Your task to perform on an android device: What's the weather going to be tomorrow? Image 0: 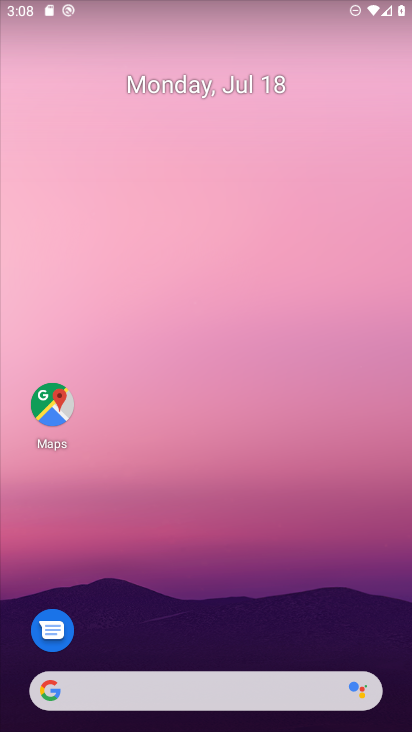
Step 0: drag from (198, 612) to (296, 140)
Your task to perform on an android device: What's the weather going to be tomorrow? Image 1: 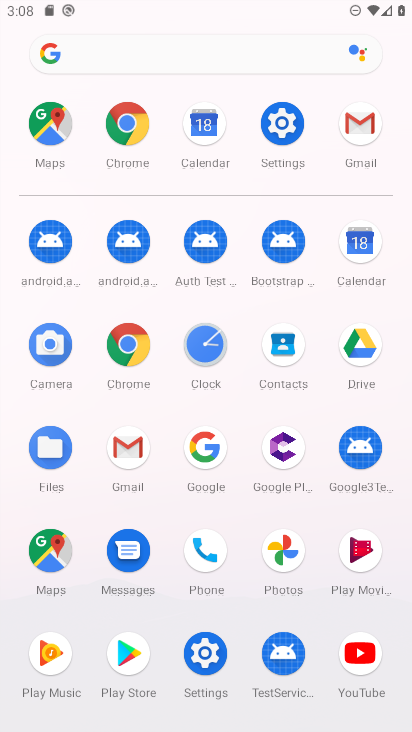
Step 1: click (123, 348)
Your task to perform on an android device: What's the weather going to be tomorrow? Image 2: 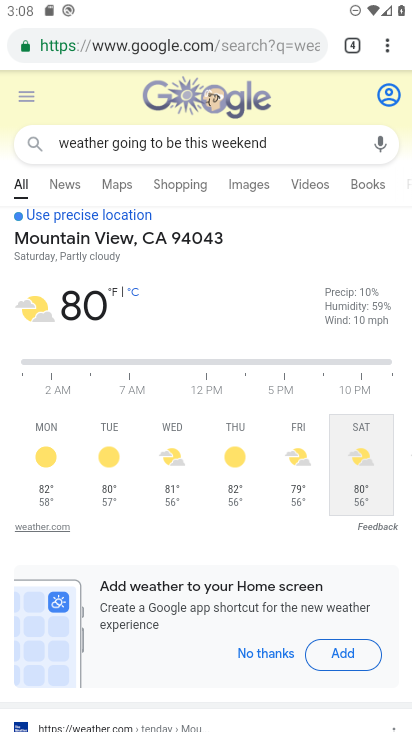
Step 2: click (178, 53)
Your task to perform on an android device: What's the weather going to be tomorrow? Image 3: 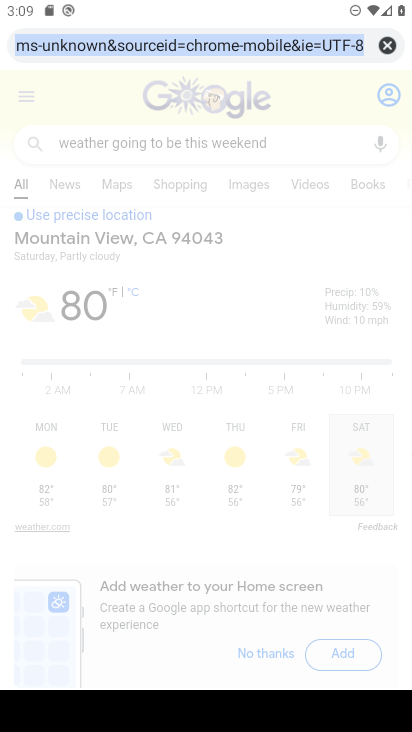
Step 3: type "weather going to be tomorrow"
Your task to perform on an android device: What's the weather going to be tomorrow? Image 4: 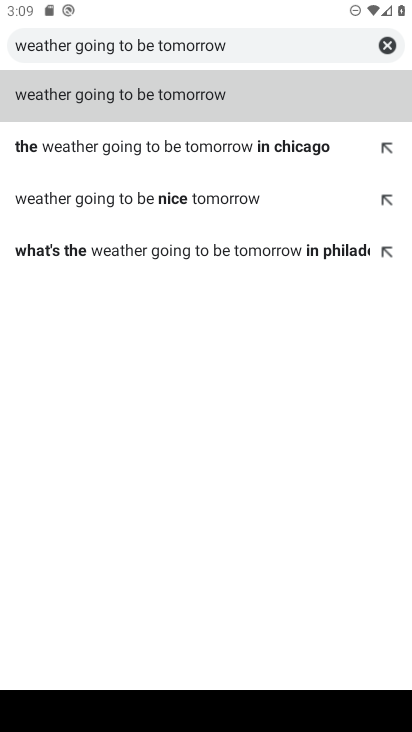
Step 4: click (233, 96)
Your task to perform on an android device: What's the weather going to be tomorrow? Image 5: 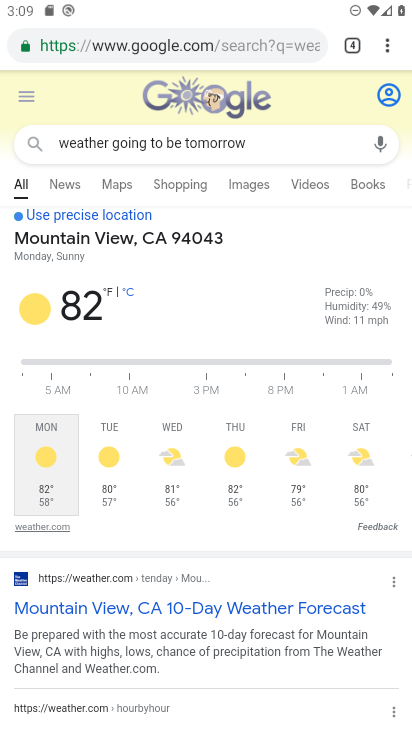
Step 5: task complete